Your task to perform on an android device: delete location history Image 0: 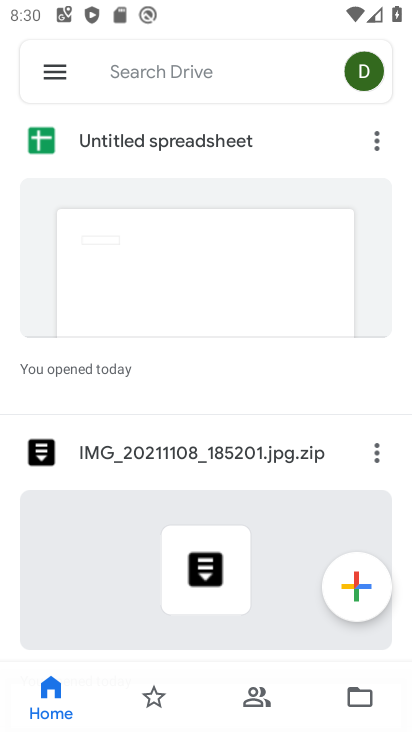
Step 0: press home button
Your task to perform on an android device: delete location history Image 1: 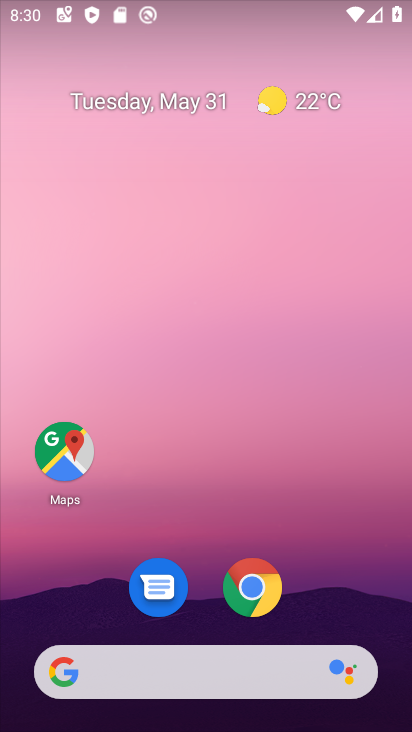
Step 1: click (70, 442)
Your task to perform on an android device: delete location history Image 2: 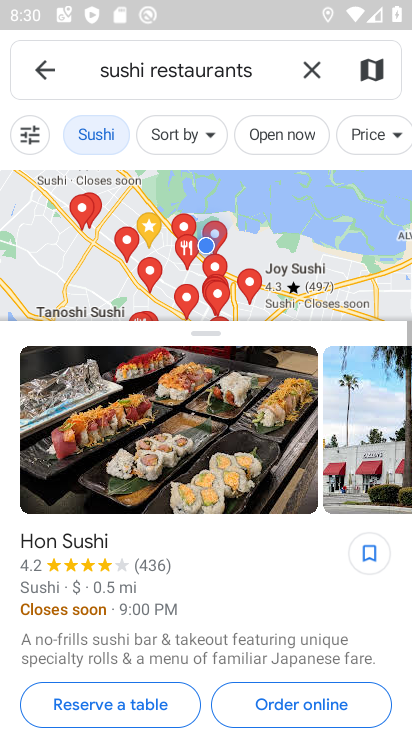
Step 2: click (53, 65)
Your task to perform on an android device: delete location history Image 3: 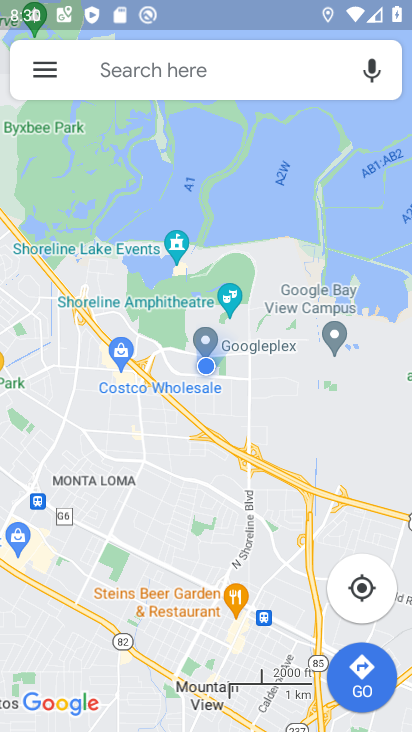
Step 3: click (53, 65)
Your task to perform on an android device: delete location history Image 4: 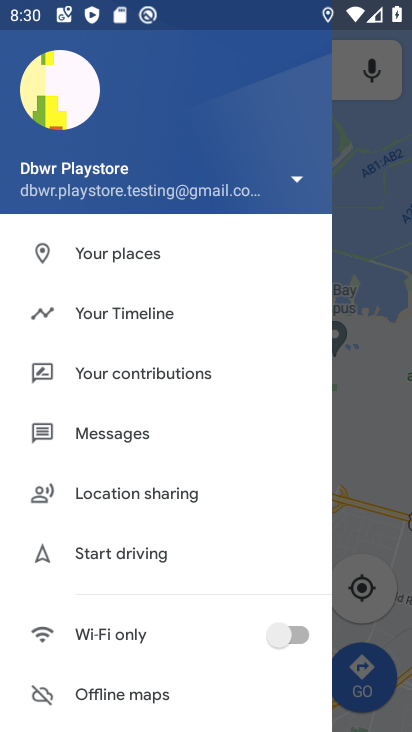
Step 4: click (121, 316)
Your task to perform on an android device: delete location history Image 5: 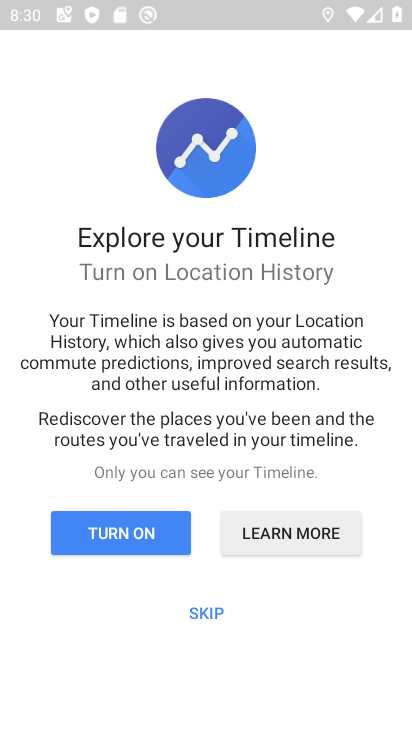
Step 5: click (109, 542)
Your task to perform on an android device: delete location history Image 6: 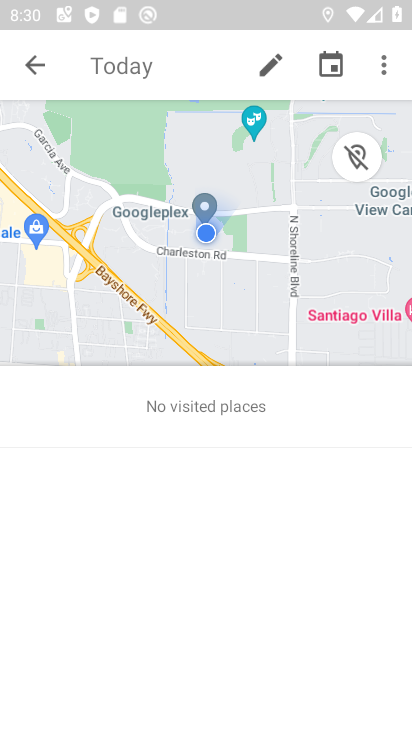
Step 6: click (392, 62)
Your task to perform on an android device: delete location history Image 7: 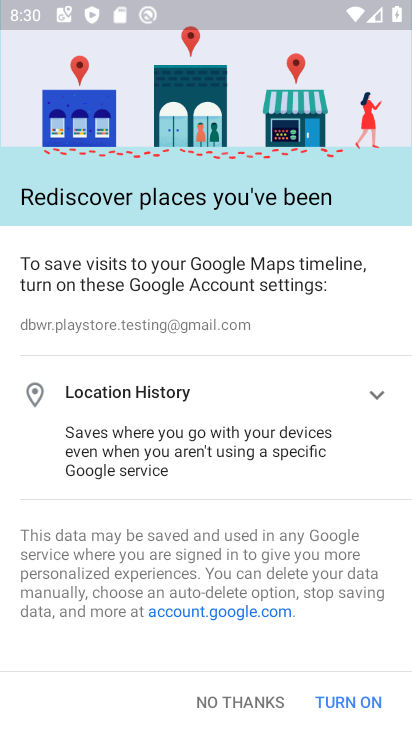
Step 7: click (363, 705)
Your task to perform on an android device: delete location history Image 8: 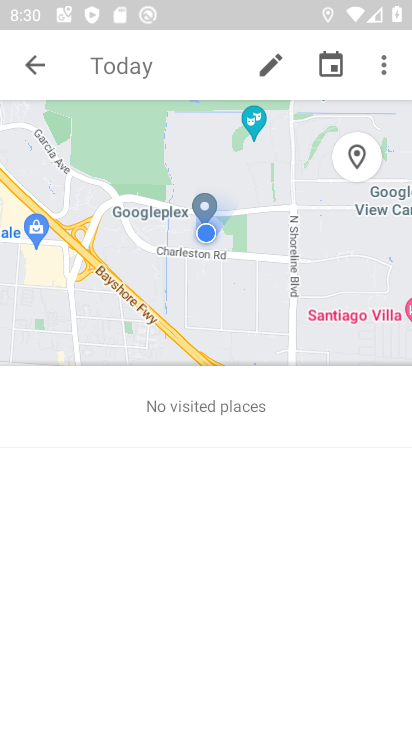
Step 8: click (397, 75)
Your task to perform on an android device: delete location history Image 9: 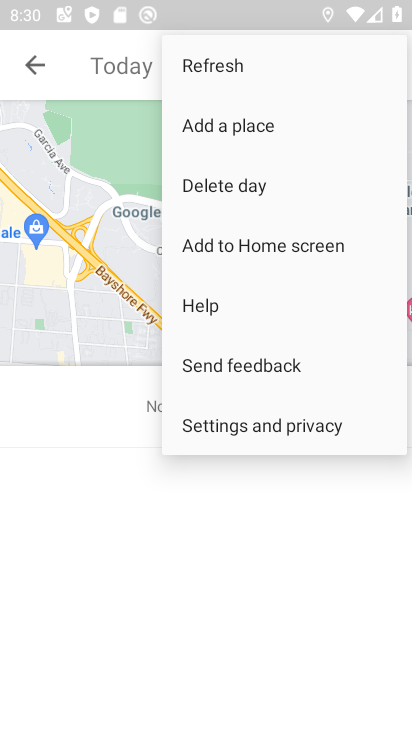
Step 9: click (244, 436)
Your task to perform on an android device: delete location history Image 10: 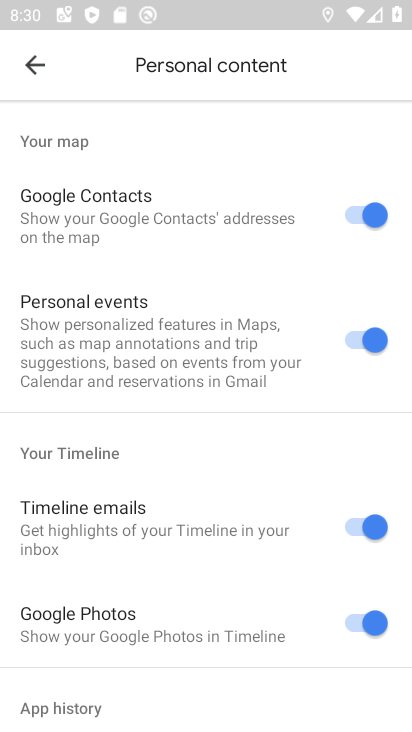
Step 10: drag from (161, 718) to (226, 94)
Your task to perform on an android device: delete location history Image 11: 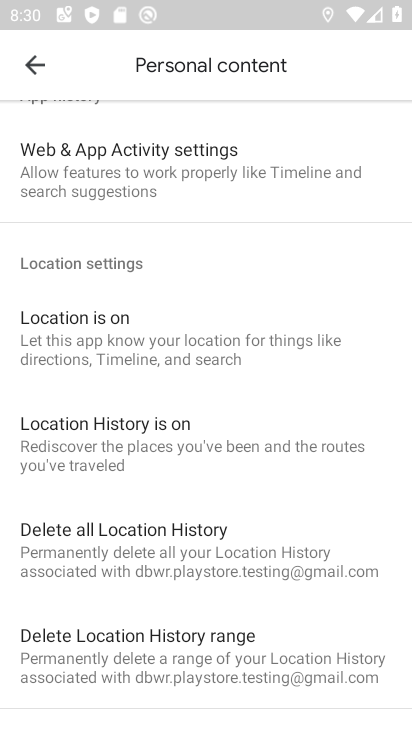
Step 11: click (134, 557)
Your task to perform on an android device: delete location history Image 12: 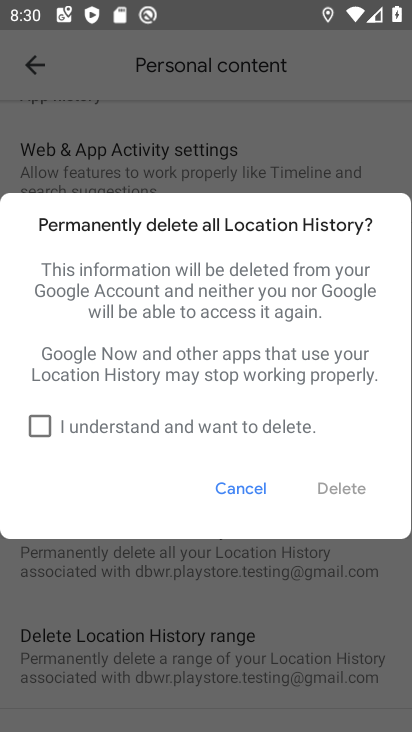
Step 12: click (46, 425)
Your task to perform on an android device: delete location history Image 13: 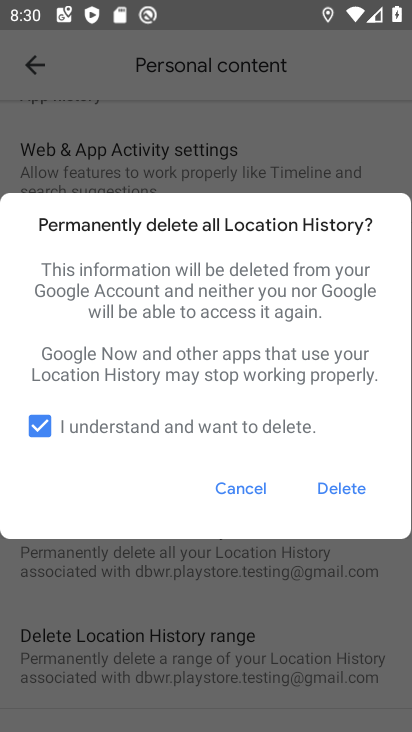
Step 13: click (356, 486)
Your task to perform on an android device: delete location history Image 14: 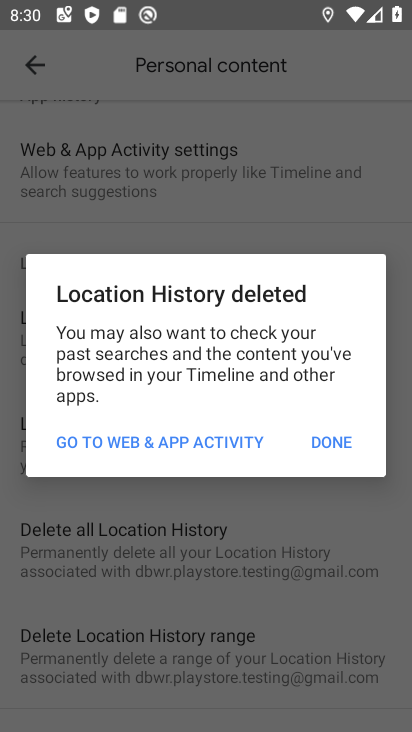
Step 14: click (332, 443)
Your task to perform on an android device: delete location history Image 15: 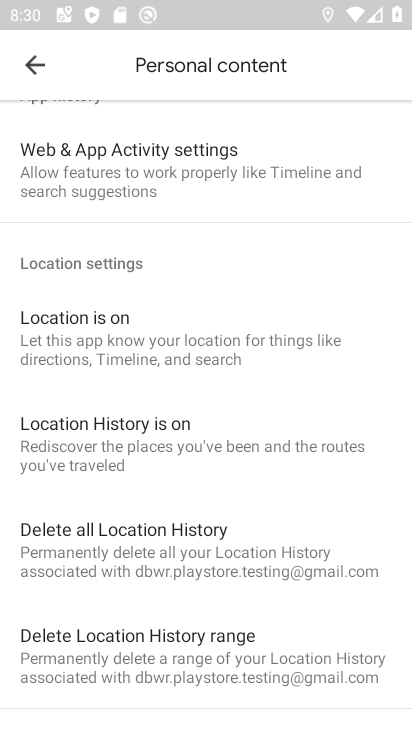
Step 15: task complete